Your task to perform on an android device: refresh tabs in the chrome app Image 0: 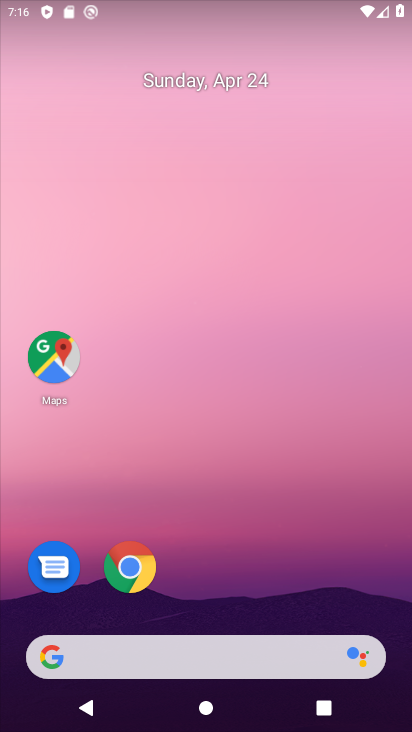
Step 0: drag from (253, 669) to (270, 166)
Your task to perform on an android device: refresh tabs in the chrome app Image 1: 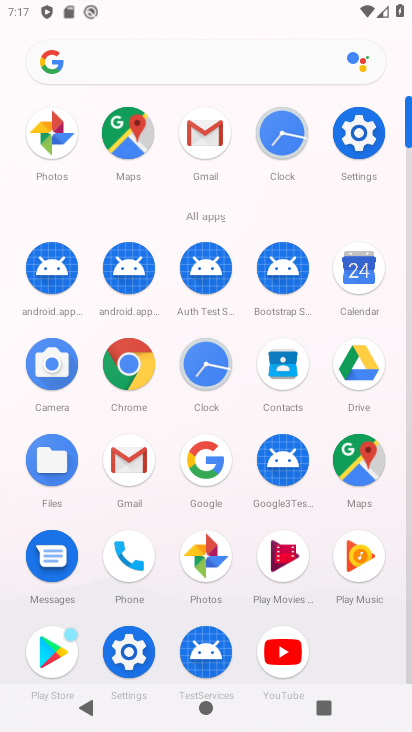
Step 1: click (127, 360)
Your task to perform on an android device: refresh tabs in the chrome app Image 2: 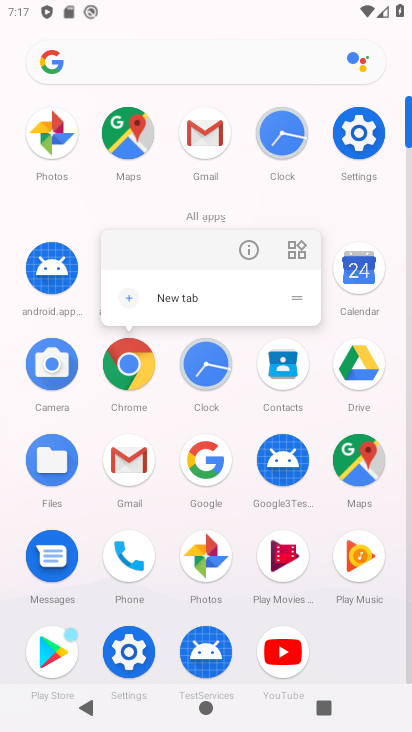
Step 2: click (127, 361)
Your task to perform on an android device: refresh tabs in the chrome app Image 3: 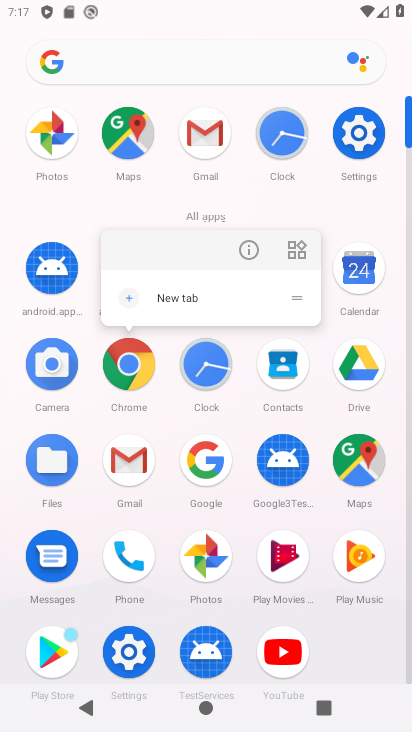
Step 3: click (131, 354)
Your task to perform on an android device: refresh tabs in the chrome app Image 4: 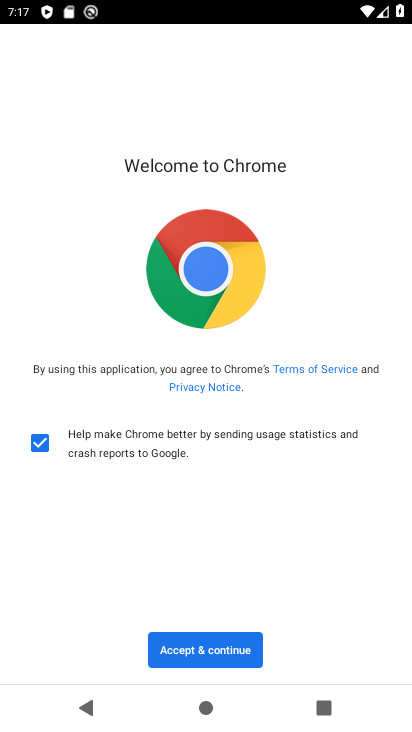
Step 4: click (189, 654)
Your task to perform on an android device: refresh tabs in the chrome app Image 5: 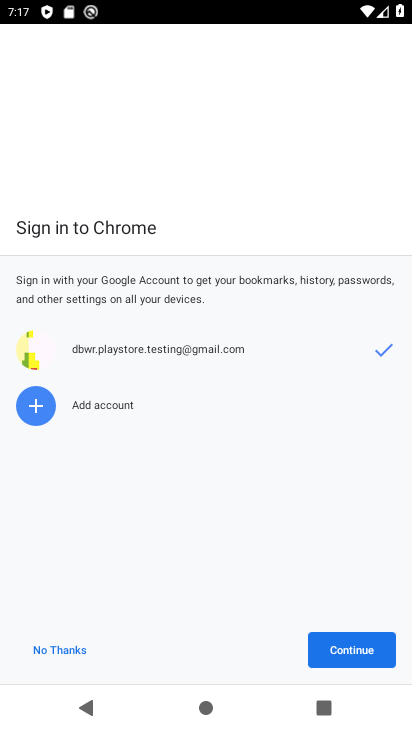
Step 5: click (346, 654)
Your task to perform on an android device: refresh tabs in the chrome app Image 6: 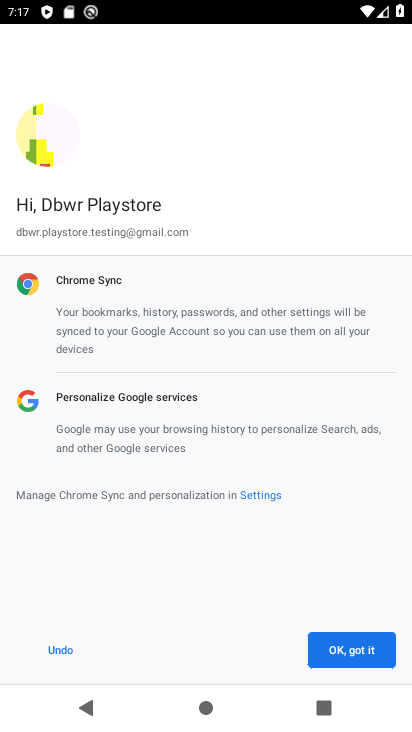
Step 6: click (348, 649)
Your task to perform on an android device: refresh tabs in the chrome app Image 7: 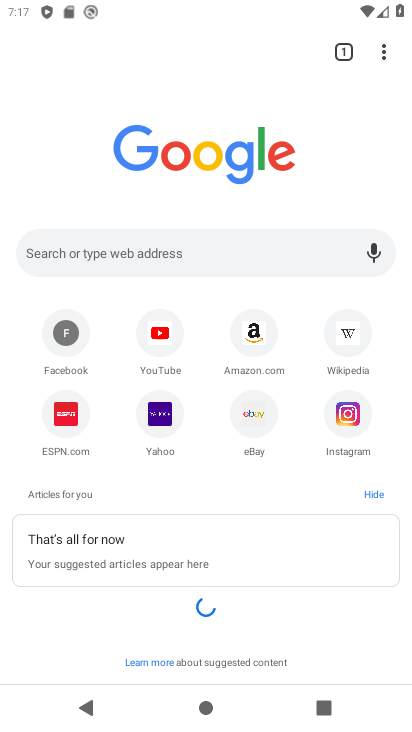
Step 7: click (384, 53)
Your task to perform on an android device: refresh tabs in the chrome app Image 8: 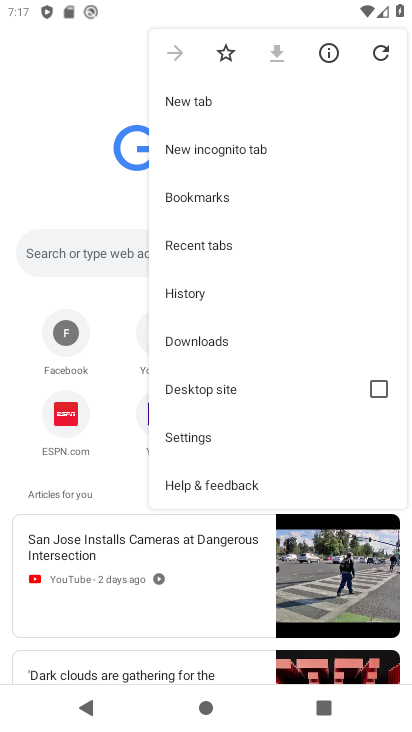
Step 8: click (381, 53)
Your task to perform on an android device: refresh tabs in the chrome app Image 9: 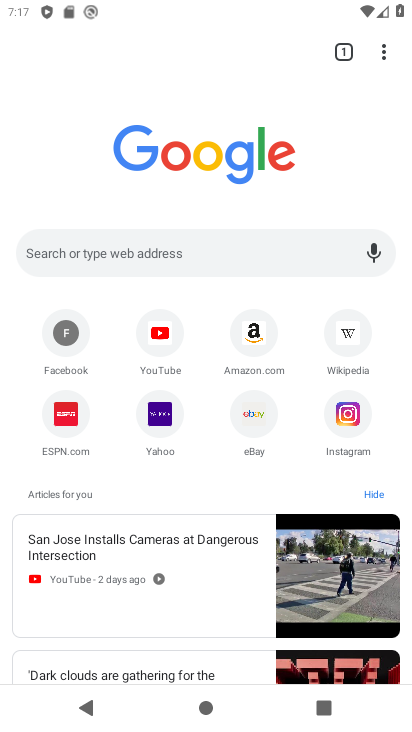
Step 9: task complete